Your task to perform on an android device: Open ESPN.com Image 0: 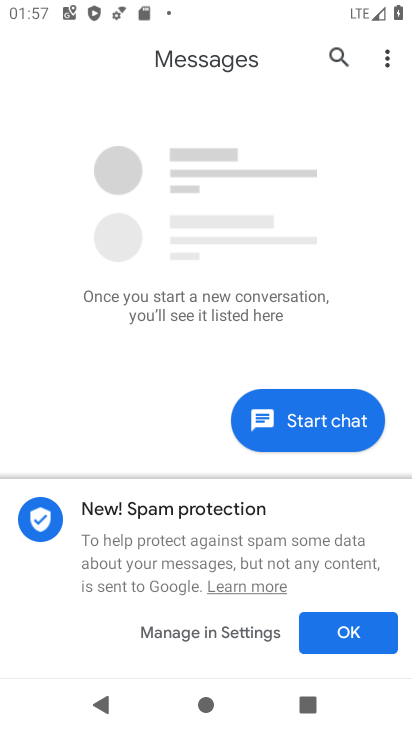
Step 0: press home button
Your task to perform on an android device: Open ESPN.com Image 1: 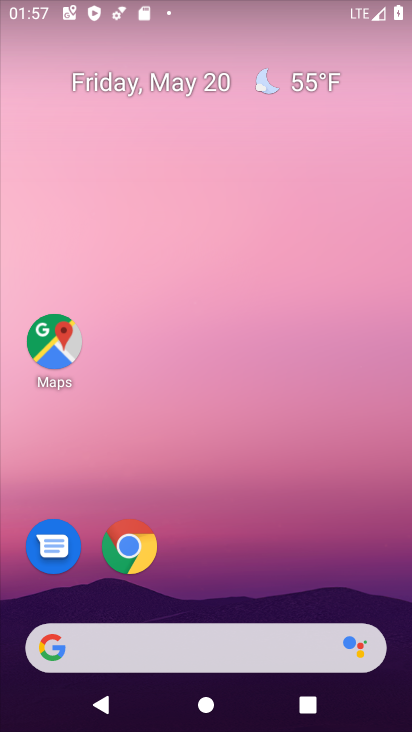
Step 1: click (134, 554)
Your task to perform on an android device: Open ESPN.com Image 2: 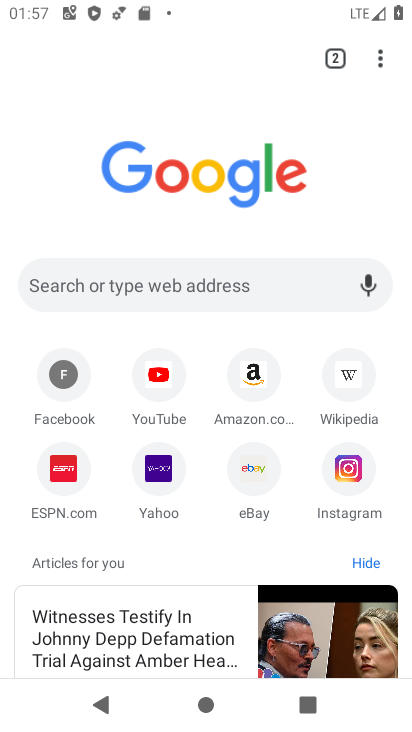
Step 2: click (63, 477)
Your task to perform on an android device: Open ESPN.com Image 3: 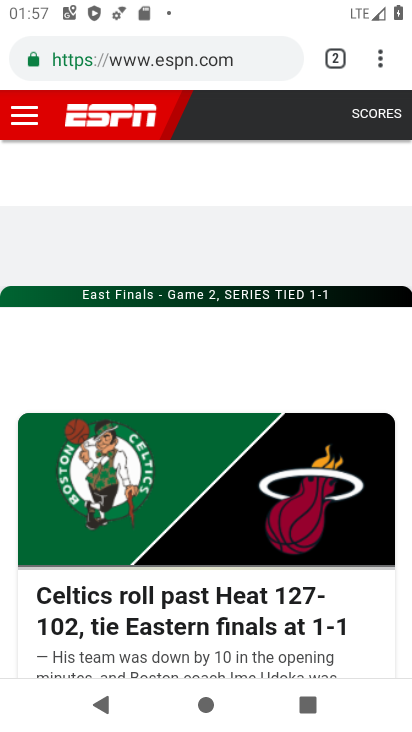
Step 3: task complete